Your task to perform on an android device: visit the assistant section in the google photos Image 0: 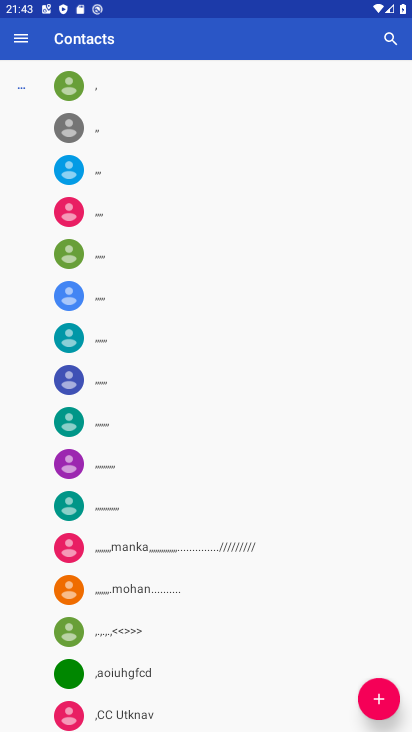
Step 0: drag from (348, 598) to (365, 430)
Your task to perform on an android device: visit the assistant section in the google photos Image 1: 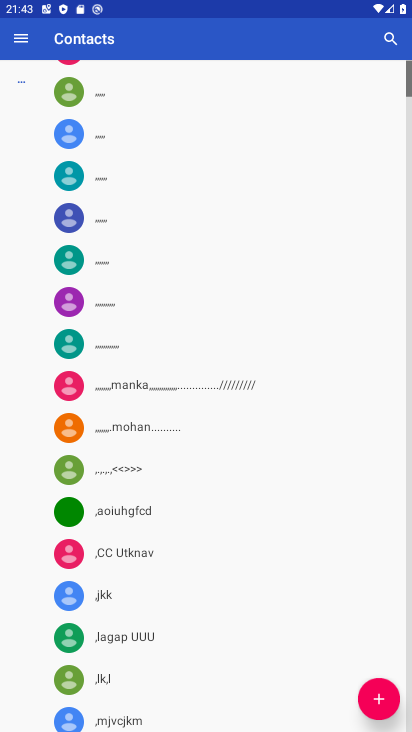
Step 1: press home button
Your task to perform on an android device: visit the assistant section in the google photos Image 2: 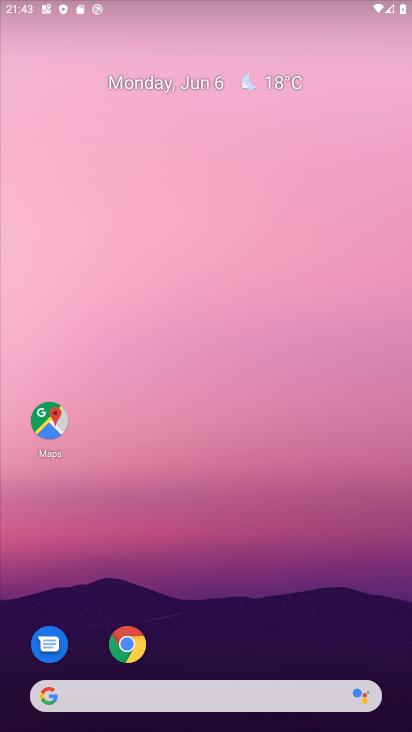
Step 2: drag from (349, 589) to (368, 177)
Your task to perform on an android device: visit the assistant section in the google photos Image 3: 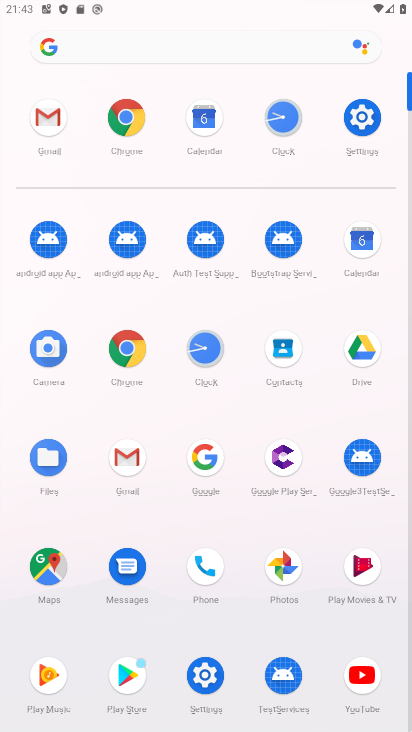
Step 3: click (286, 555)
Your task to perform on an android device: visit the assistant section in the google photos Image 4: 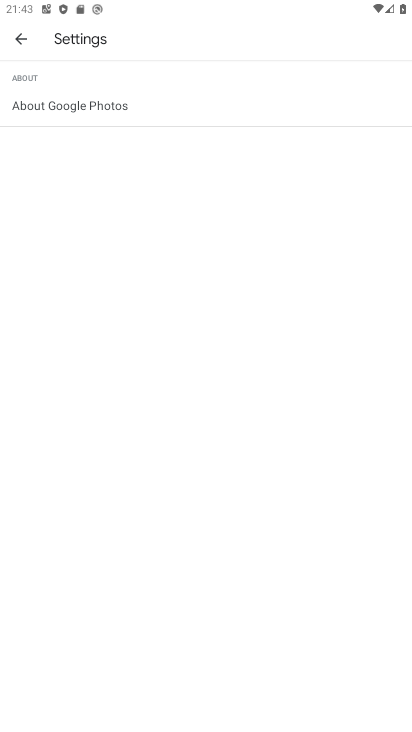
Step 4: click (13, 37)
Your task to perform on an android device: visit the assistant section in the google photos Image 5: 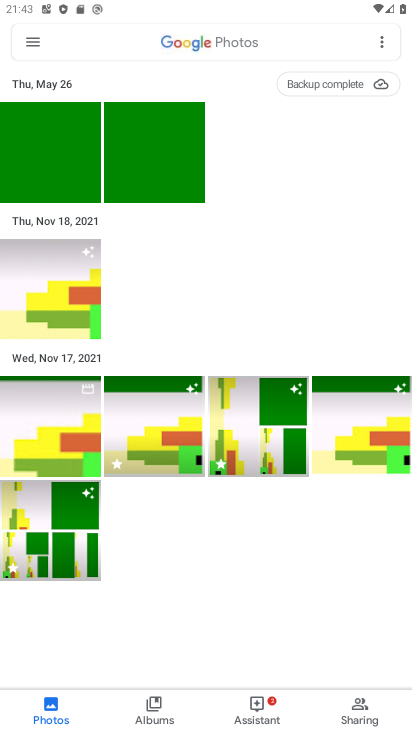
Step 5: click (256, 719)
Your task to perform on an android device: visit the assistant section in the google photos Image 6: 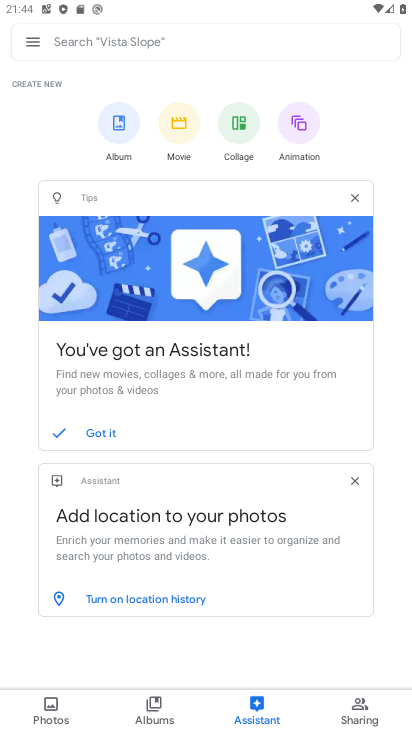
Step 6: task complete